Your task to perform on an android device: turn off translation in the chrome app Image 0: 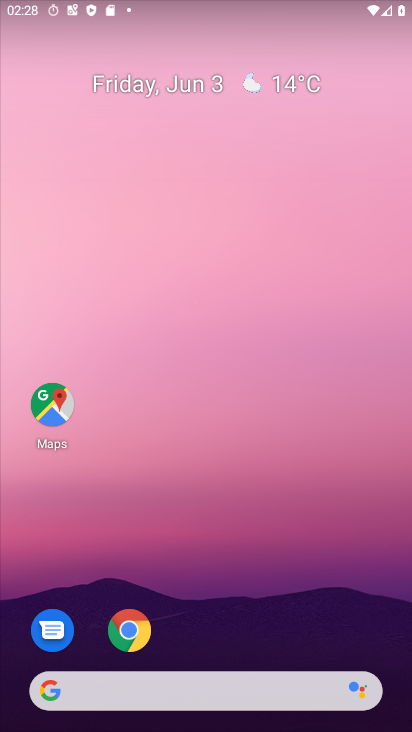
Step 0: click (134, 633)
Your task to perform on an android device: turn off translation in the chrome app Image 1: 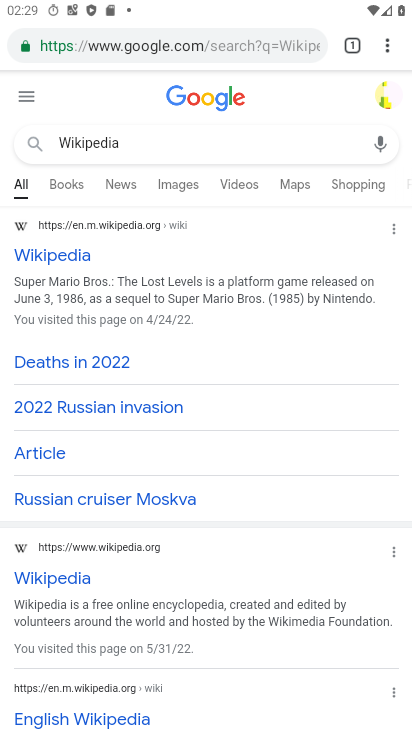
Step 1: click (389, 48)
Your task to perform on an android device: turn off translation in the chrome app Image 2: 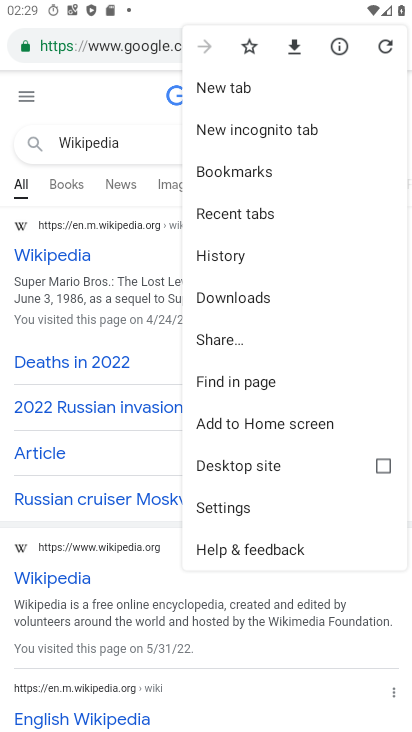
Step 2: click (218, 511)
Your task to perform on an android device: turn off translation in the chrome app Image 3: 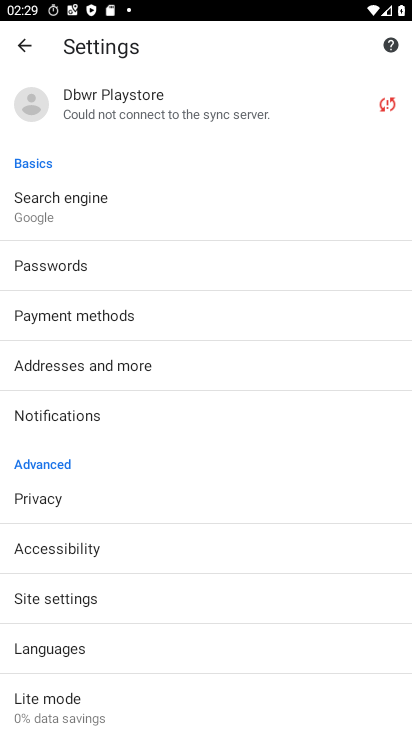
Step 3: click (108, 650)
Your task to perform on an android device: turn off translation in the chrome app Image 4: 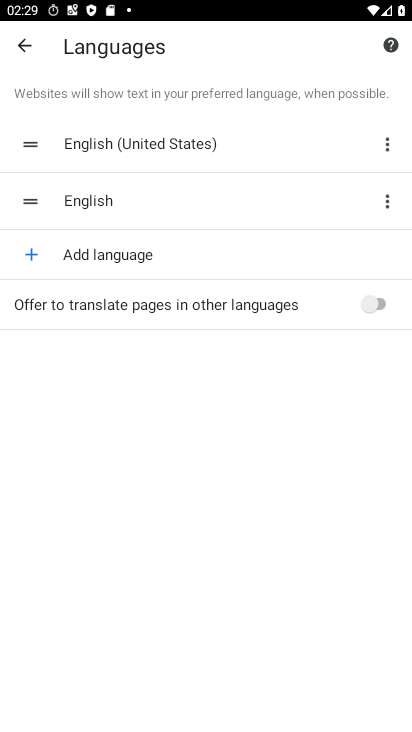
Step 4: task complete